Your task to perform on an android device: Open location settings Image 0: 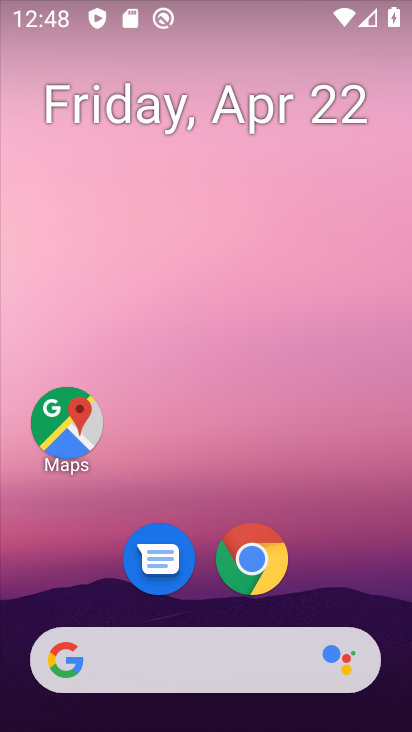
Step 0: click (191, 64)
Your task to perform on an android device: Open location settings Image 1: 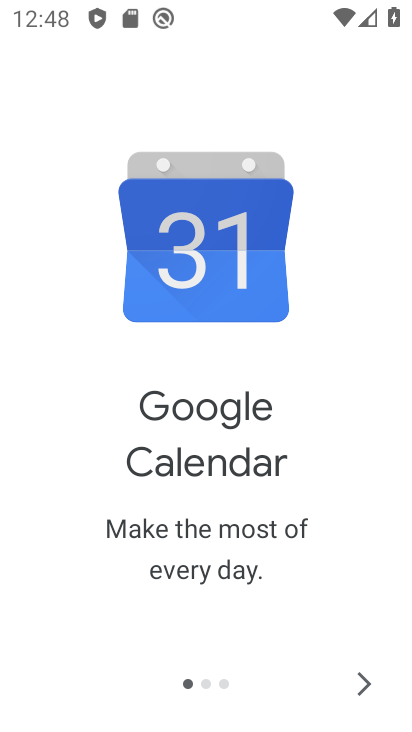
Step 1: press back button
Your task to perform on an android device: Open location settings Image 2: 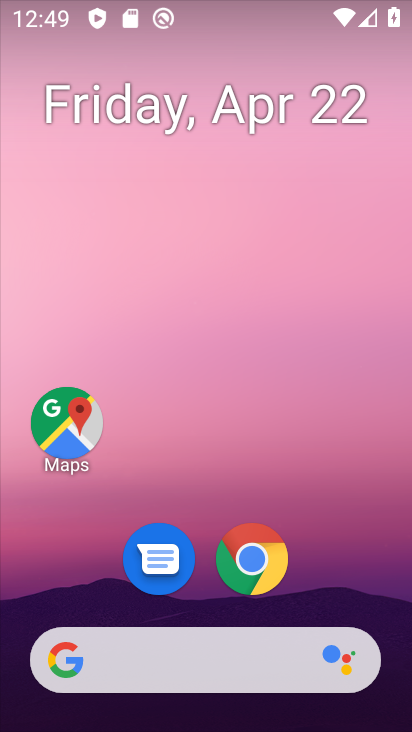
Step 2: drag from (216, 568) to (206, 66)
Your task to perform on an android device: Open location settings Image 3: 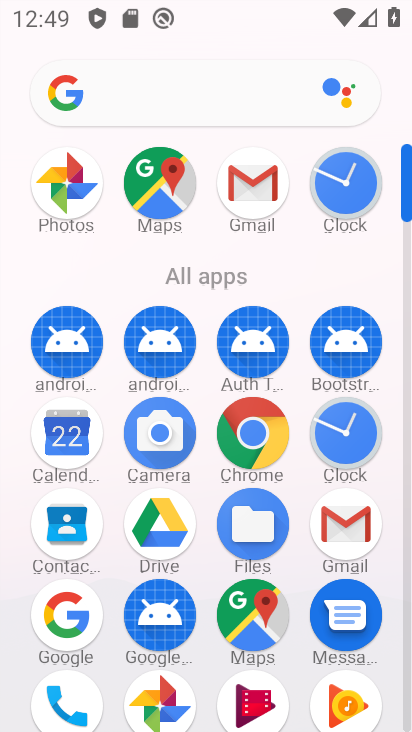
Step 3: drag from (202, 584) to (204, 240)
Your task to perform on an android device: Open location settings Image 4: 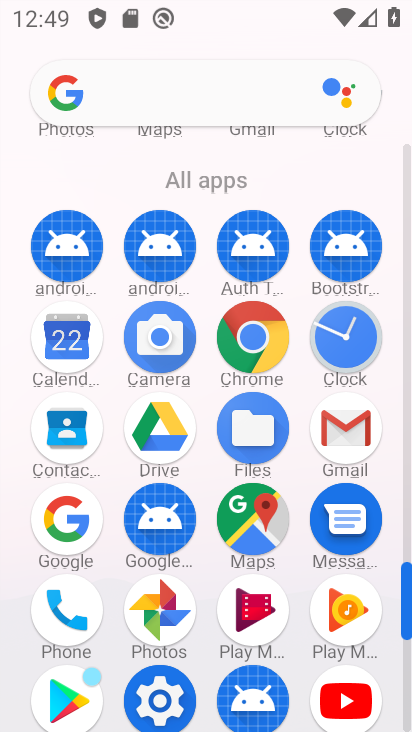
Step 4: click (156, 700)
Your task to perform on an android device: Open location settings Image 5: 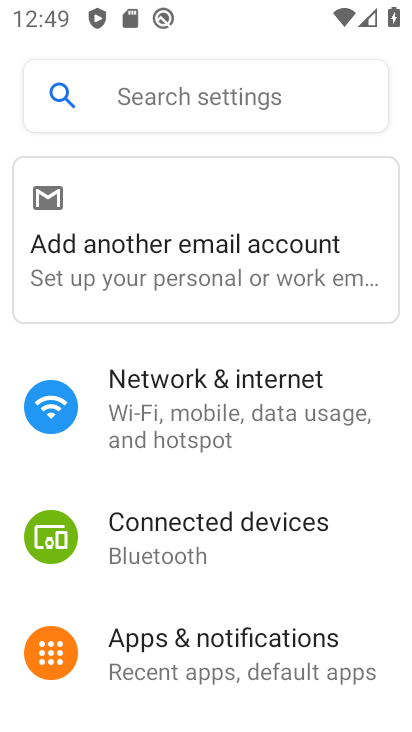
Step 5: drag from (246, 697) to (195, 324)
Your task to perform on an android device: Open location settings Image 6: 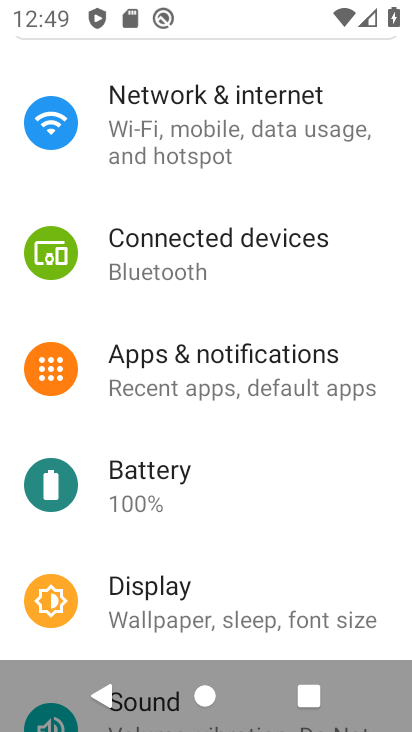
Step 6: drag from (173, 633) to (180, 292)
Your task to perform on an android device: Open location settings Image 7: 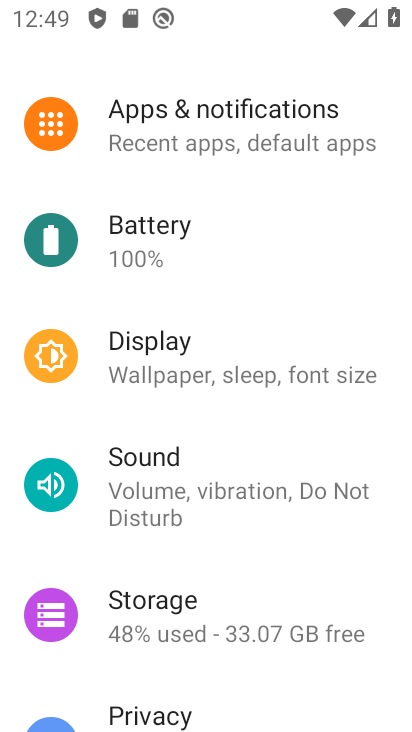
Step 7: drag from (145, 684) to (144, 315)
Your task to perform on an android device: Open location settings Image 8: 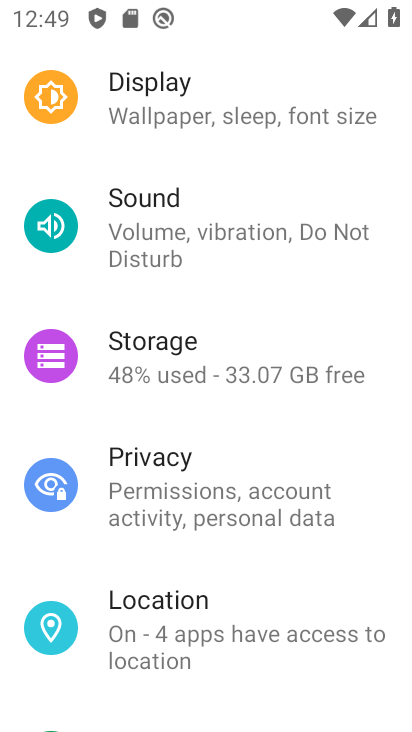
Step 8: click (181, 619)
Your task to perform on an android device: Open location settings Image 9: 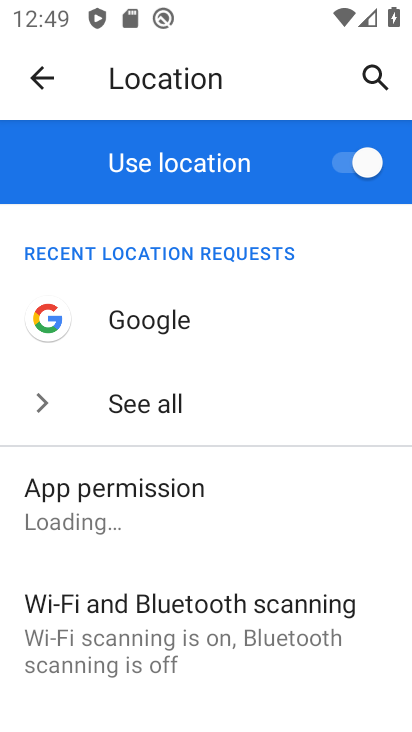
Step 9: task complete